Your task to perform on an android device: Search for "bose soundlink" on amazon.com, select the first entry, add it to the cart, then select checkout. Image 0: 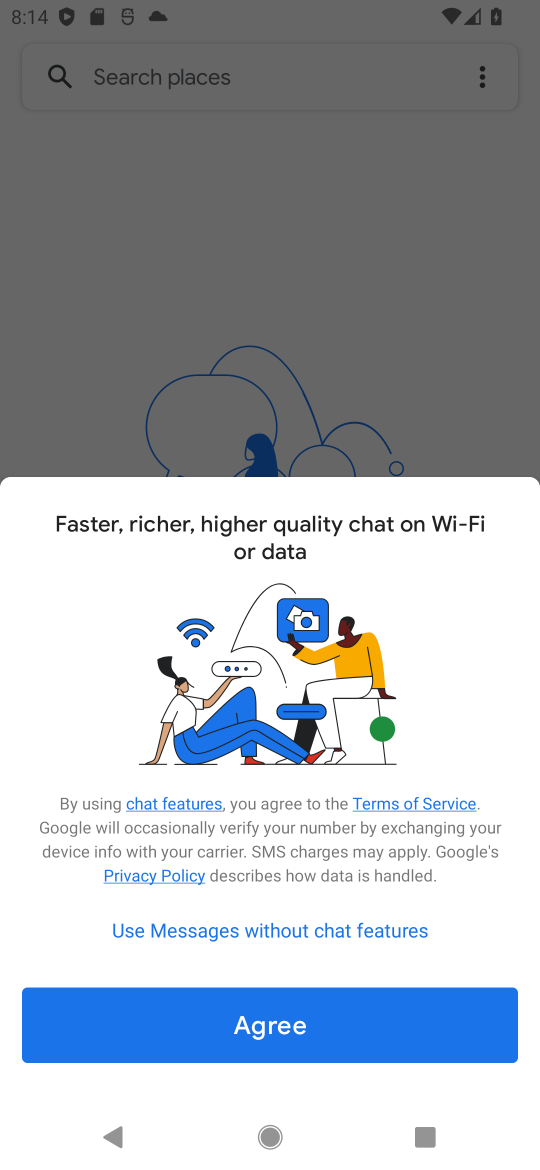
Step 0: press home button
Your task to perform on an android device: Search for "bose soundlink" on amazon.com, select the first entry, add it to the cart, then select checkout. Image 1: 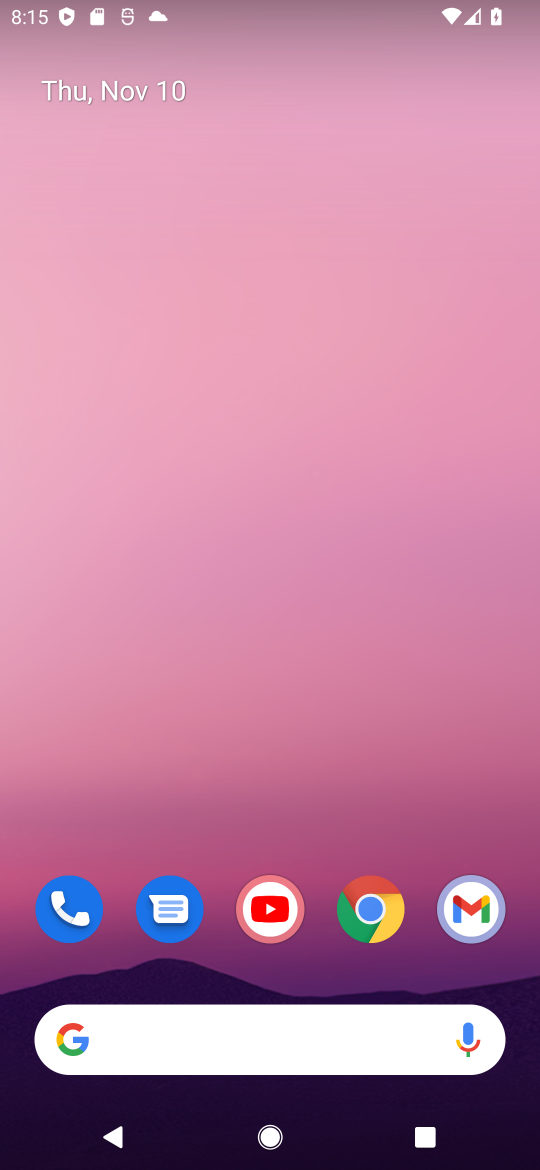
Step 1: drag from (251, 852) to (251, 241)
Your task to perform on an android device: Search for "bose soundlink" on amazon.com, select the first entry, add it to the cart, then select checkout. Image 2: 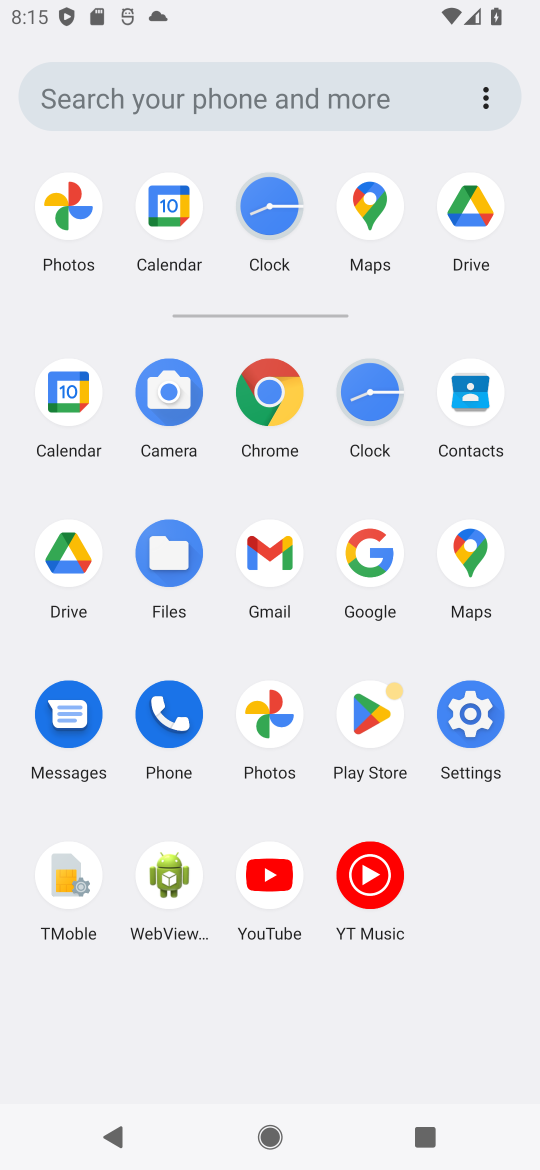
Step 2: click (360, 548)
Your task to perform on an android device: Search for "bose soundlink" on amazon.com, select the first entry, add it to the cart, then select checkout. Image 3: 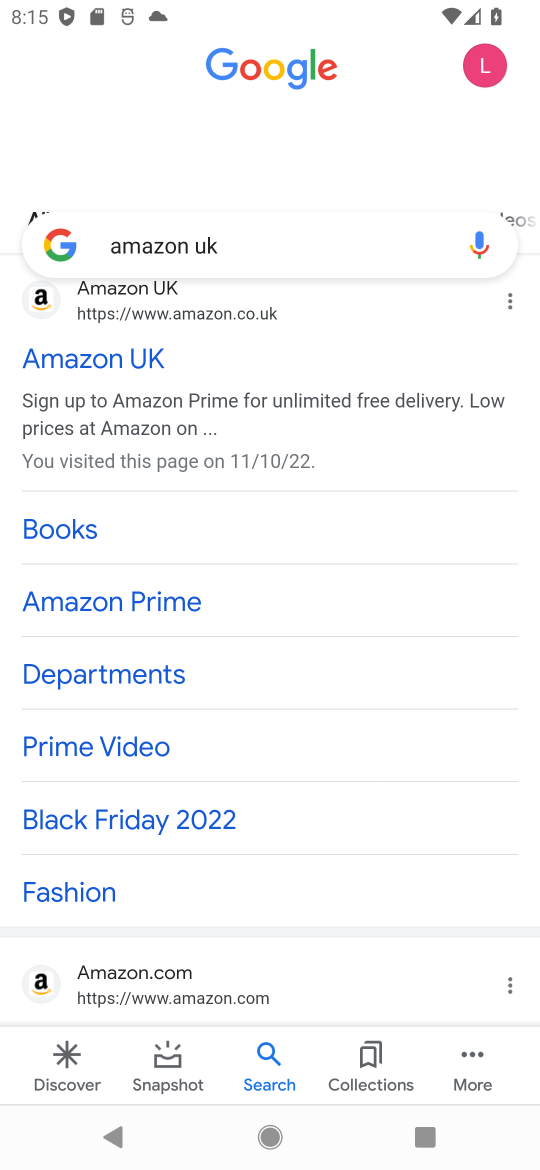
Step 3: click (205, 240)
Your task to perform on an android device: Search for "bose soundlink" on amazon.com, select the first entry, add it to the cart, then select checkout. Image 4: 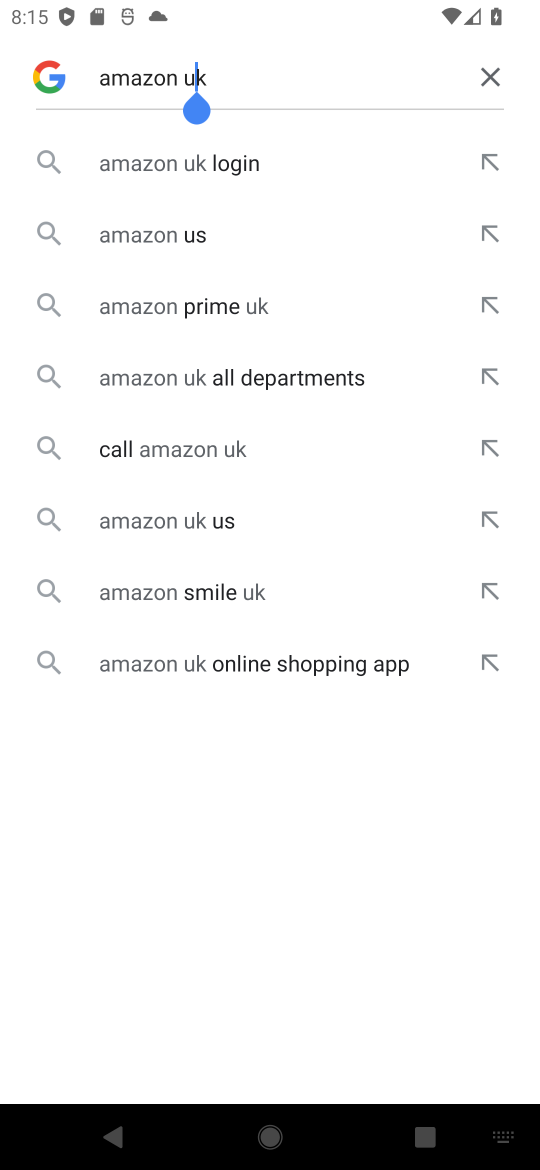
Step 4: click (484, 77)
Your task to perform on an android device: Search for "bose soundlink" on amazon.com, select the first entry, add it to the cart, then select checkout. Image 5: 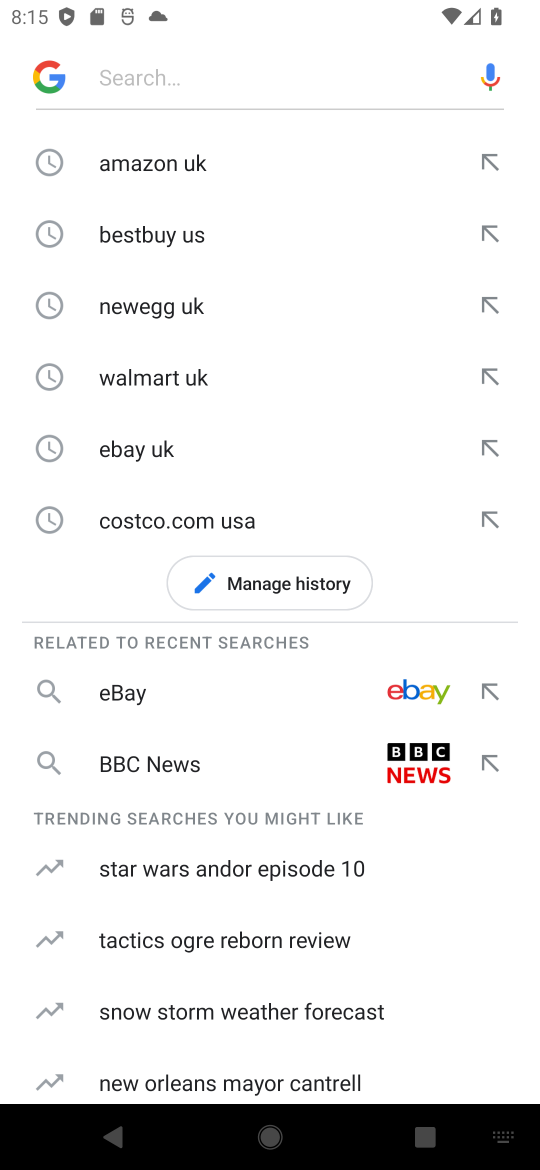
Step 5: click (127, 166)
Your task to perform on an android device: Search for "bose soundlink" on amazon.com, select the first entry, add it to the cart, then select checkout. Image 6: 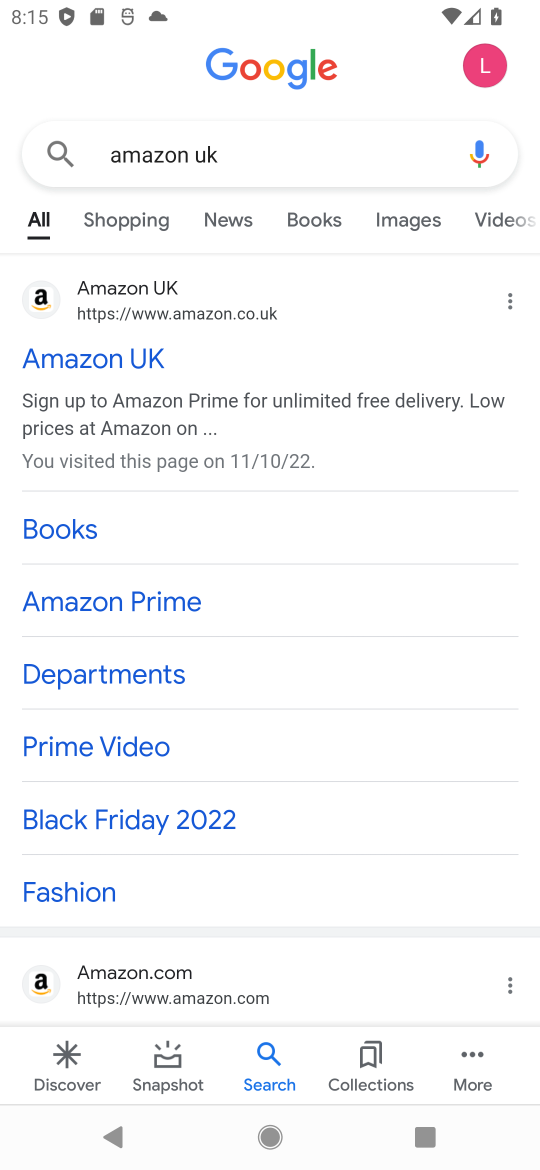
Step 6: click (42, 296)
Your task to perform on an android device: Search for "bose soundlink" on amazon.com, select the first entry, add it to the cart, then select checkout. Image 7: 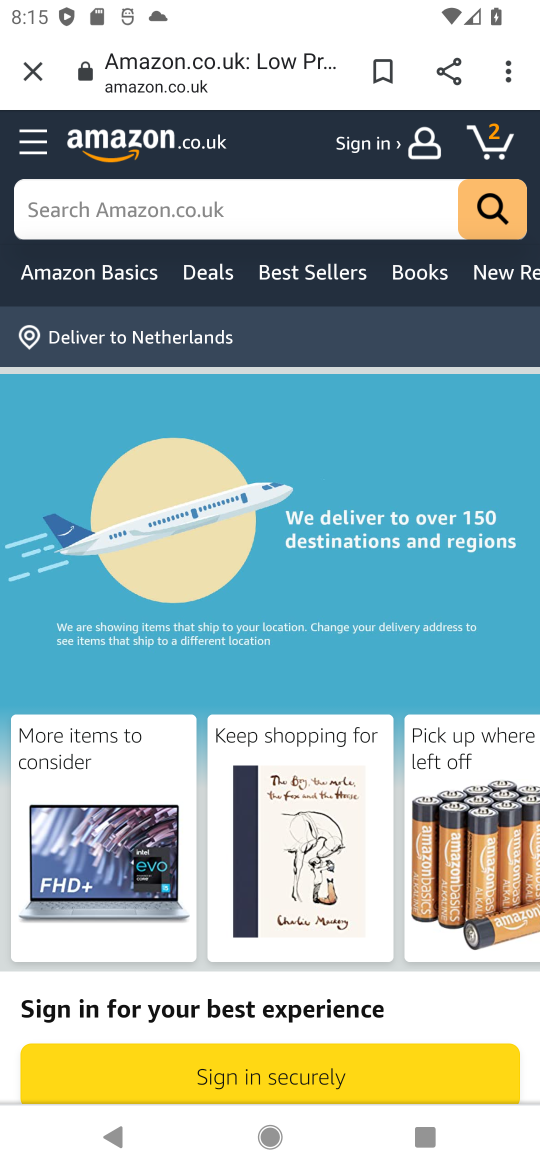
Step 7: click (254, 201)
Your task to perform on an android device: Search for "bose soundlink" on amazon.com, select the first entry, add it to the cart, then select checkout. Image 8: 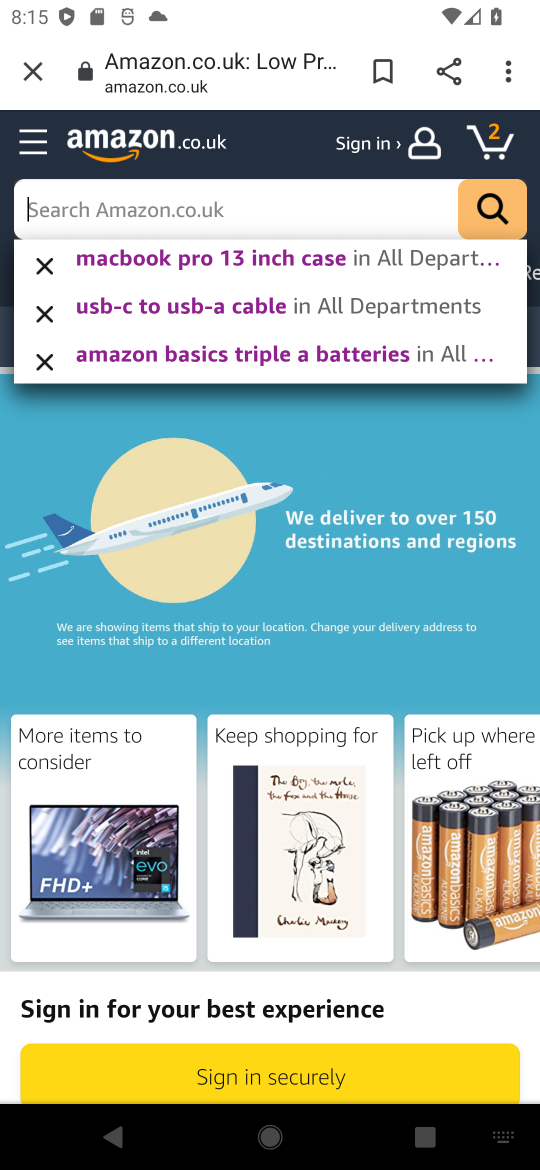
Step 8: type "bose soundlink "
Your task to perform on an android device: Search for "bose soundlink" on amazon.com, select the first entry, add it to the cart, then select checkout. Image 9: 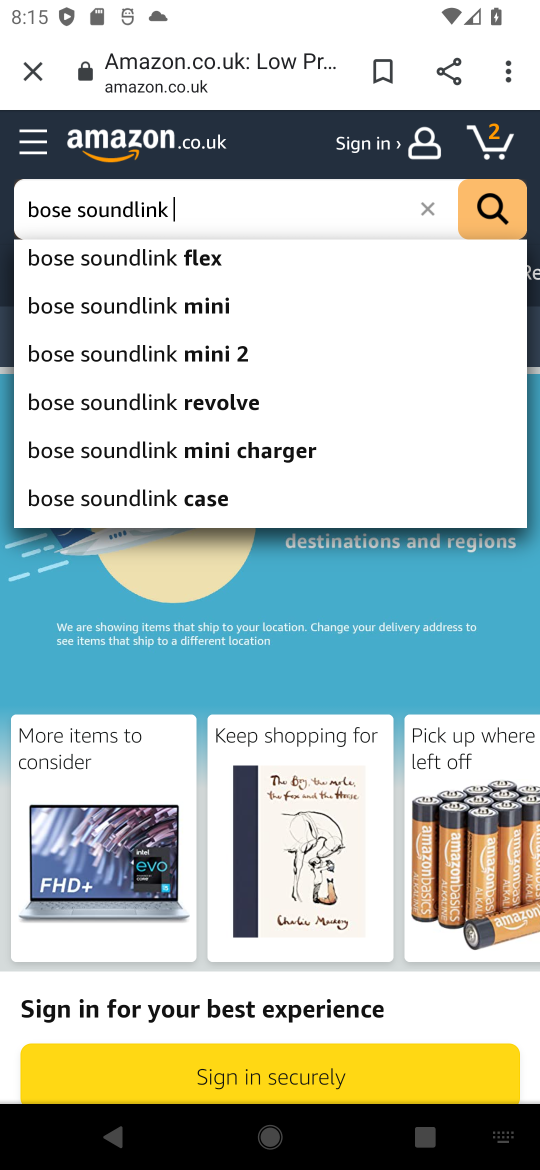
Step 9: click (124, 257)
Your task to perform on an android device: Search for "bose soundlink" on amazon.com, select the first entry, add it to the cart, then select checkout. Image 10: 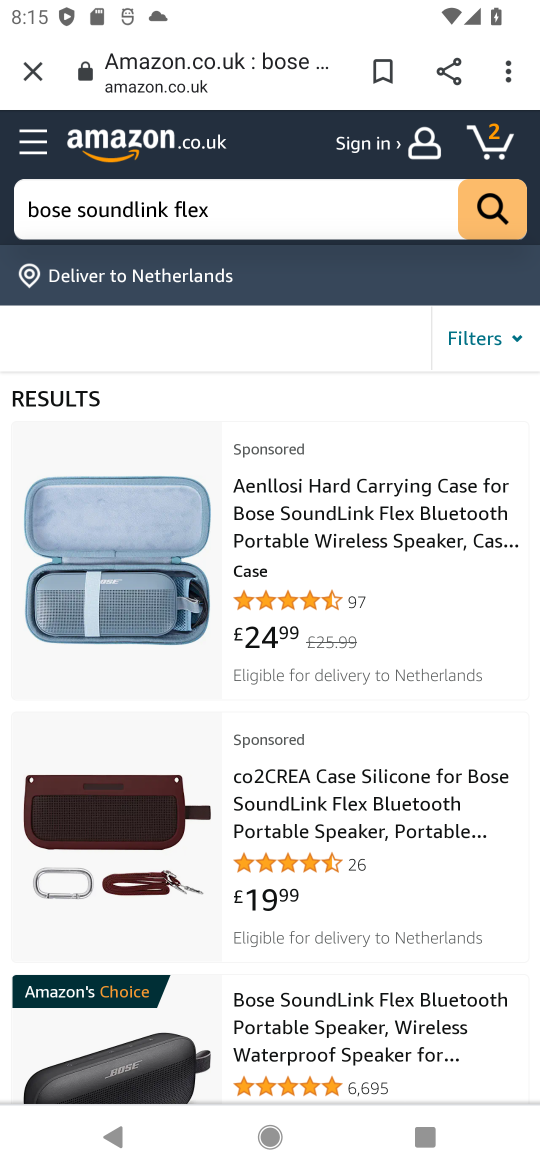
Step 10: click (413, 208)
Your task to perform on an android device: Search for "bose soundlink" on amazon.com, select the first entry, add it to the cart, then select checkout. Image 11: 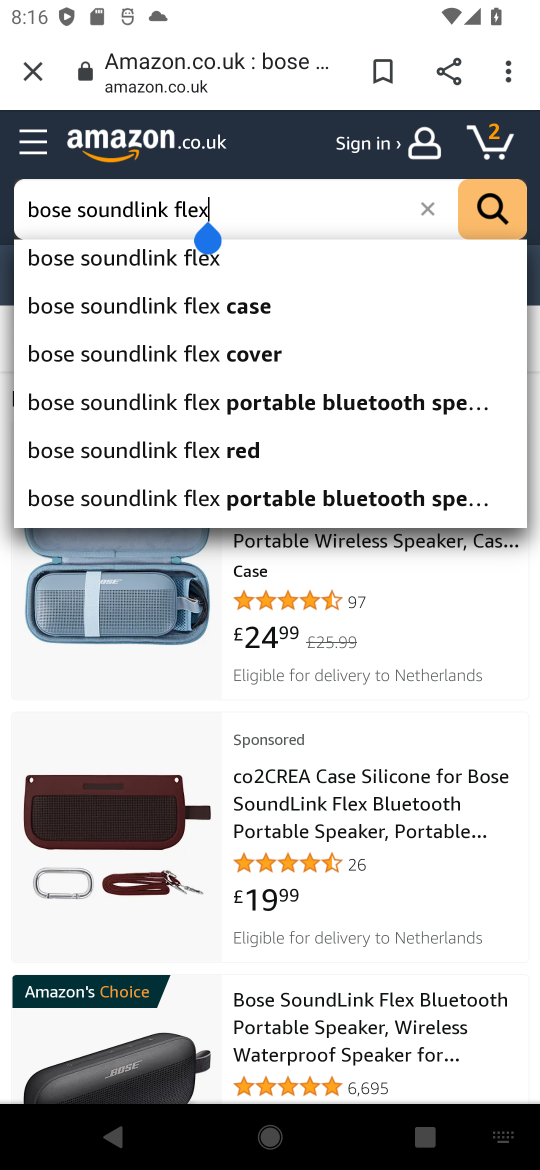
Step 11: click (429, 210)
Your task to perform on an android device: Search for "bose soundlink" on amazon.com, select the first entry, add it to the cart, then select checkout. Image 12: 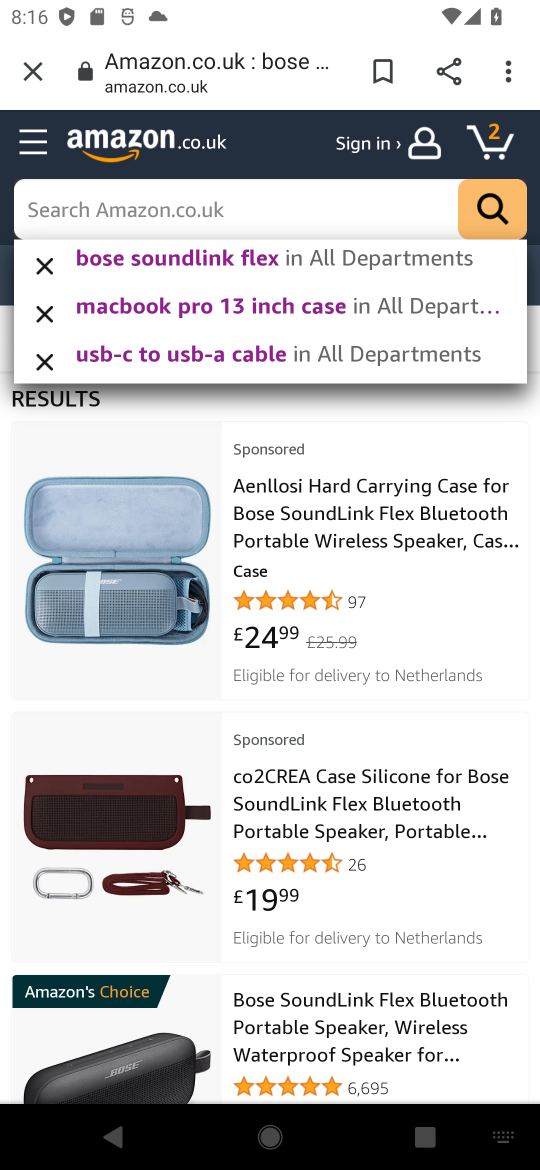
Step 12: click (249, 200)
Your task to perform on an android device: Search for "bose soundlink" on amazon.com, select the first entry, add it to the cart, then select checkout. Image 13: 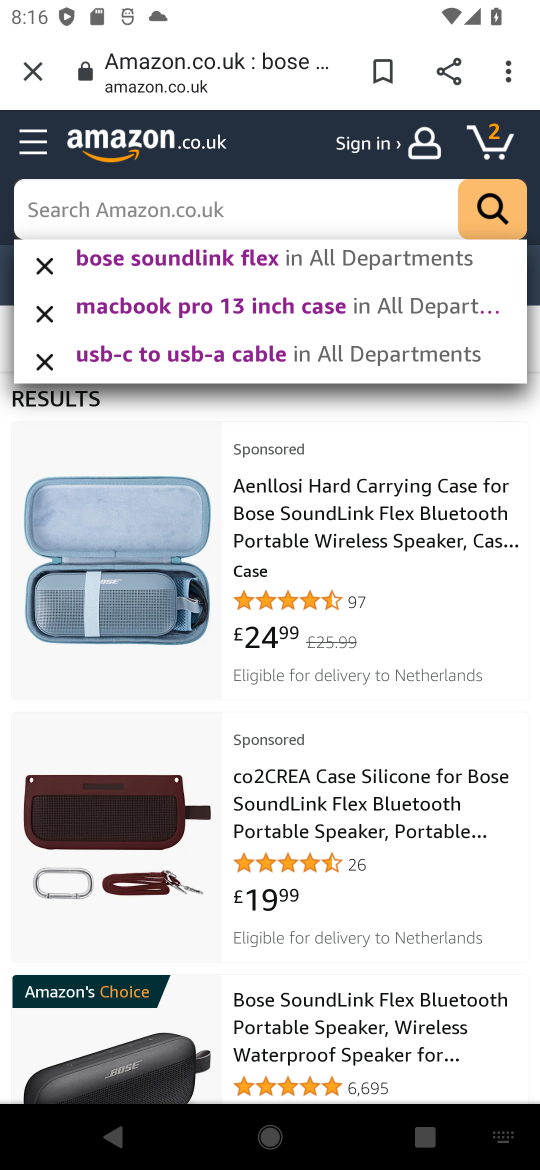
Step 13: click (187, 200)
Your task to perform on an android device: Search for "bose soundlink" on amazon.com, select the first entry, add it to the cart, then select checkout. Image 14: 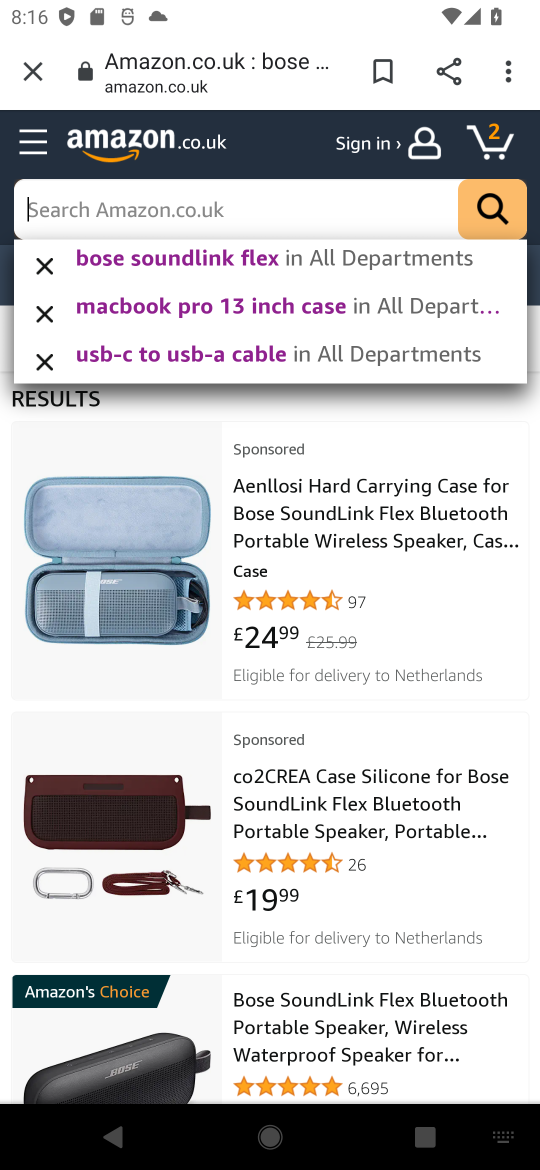
Step 14: type "bose soundlink"
Your task to perform on an android device: Search for "bose soundlink" on amazon.com, select the first entry, add it to the cart, then select checkout. Image 15: 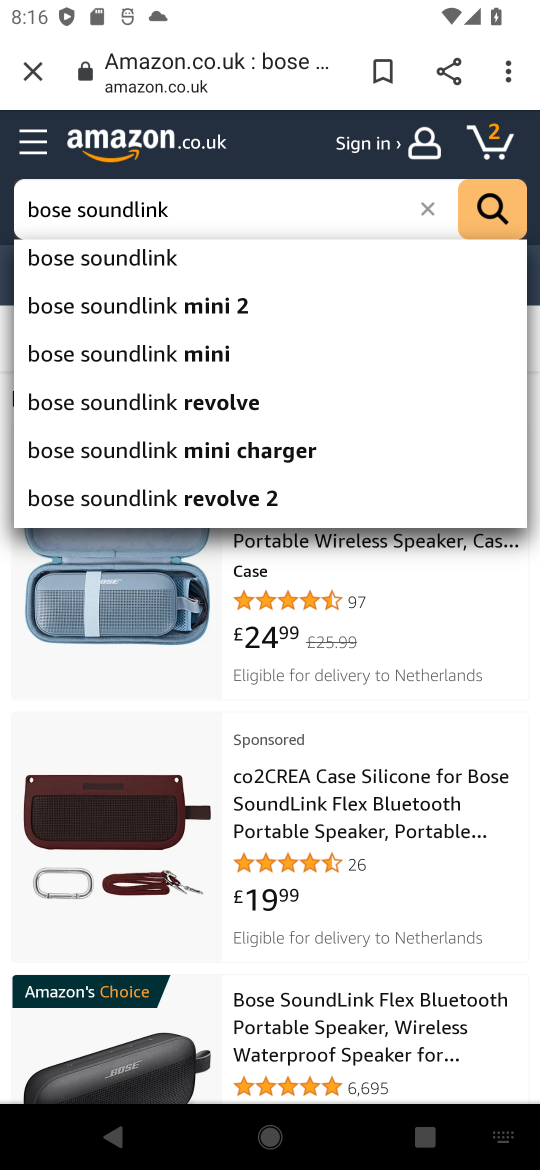
Step 15: click (58, 248)
Your task to perform on an android device: Search for "bose soundlink" on amazon.com, select the first entry, add it to the cart, then select checkout. Image 16: 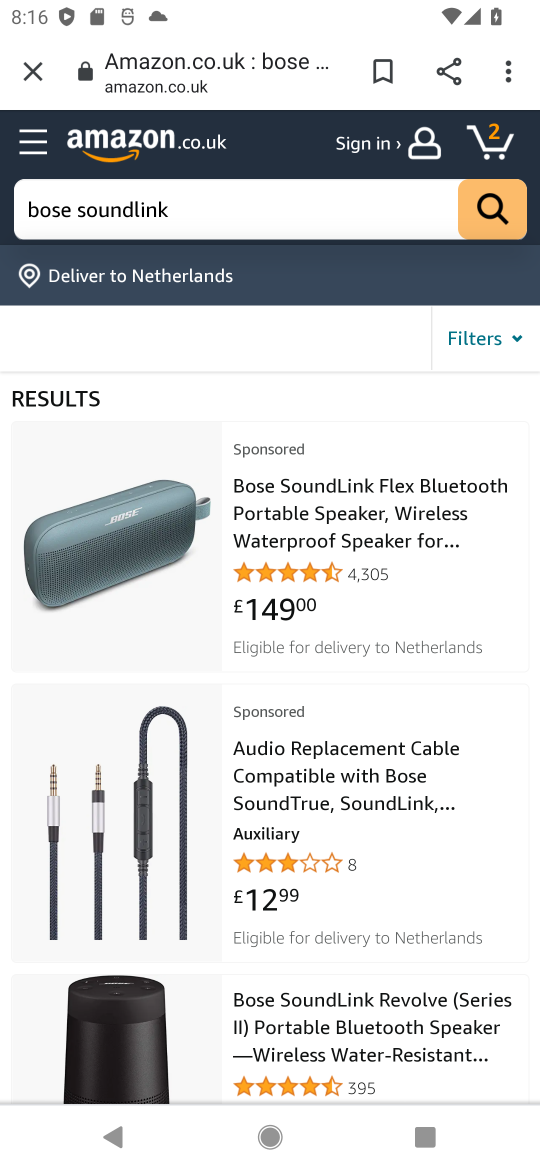
Step 16: click (318, 488)
Your task to perform on an android device: Search for "bose soundlink" on amazon.com, select the first entry, add it to the cart, then select checkout. Image 17: 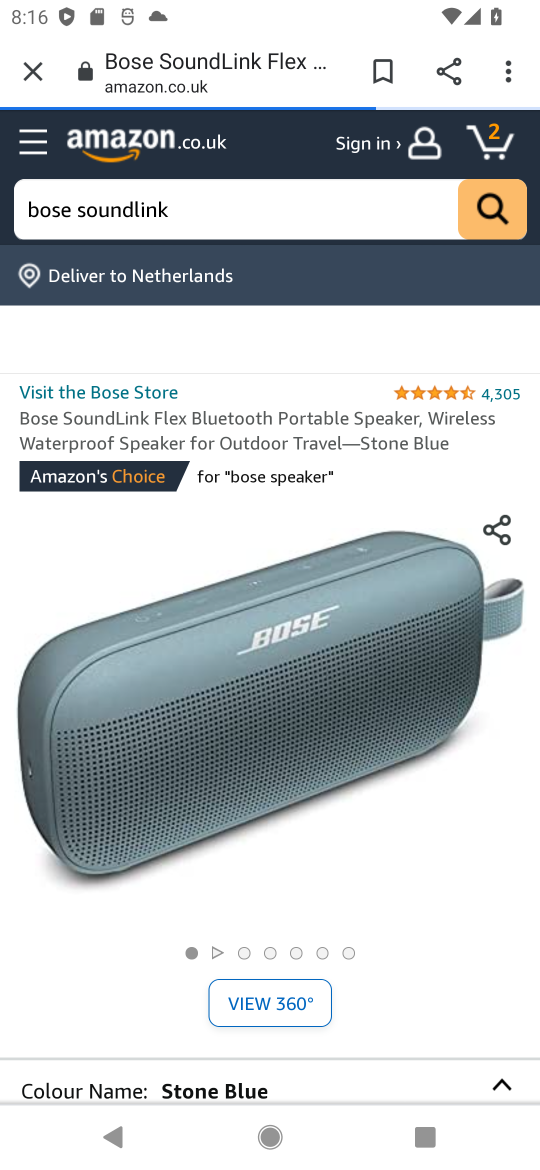
Step 17: drag from (306, 944) to (322, 364)
Your task to perform on an android device: Search for "bose soundlink" on amazon.com, select the first entry, add it to the cart, then select checkout. Image 18: 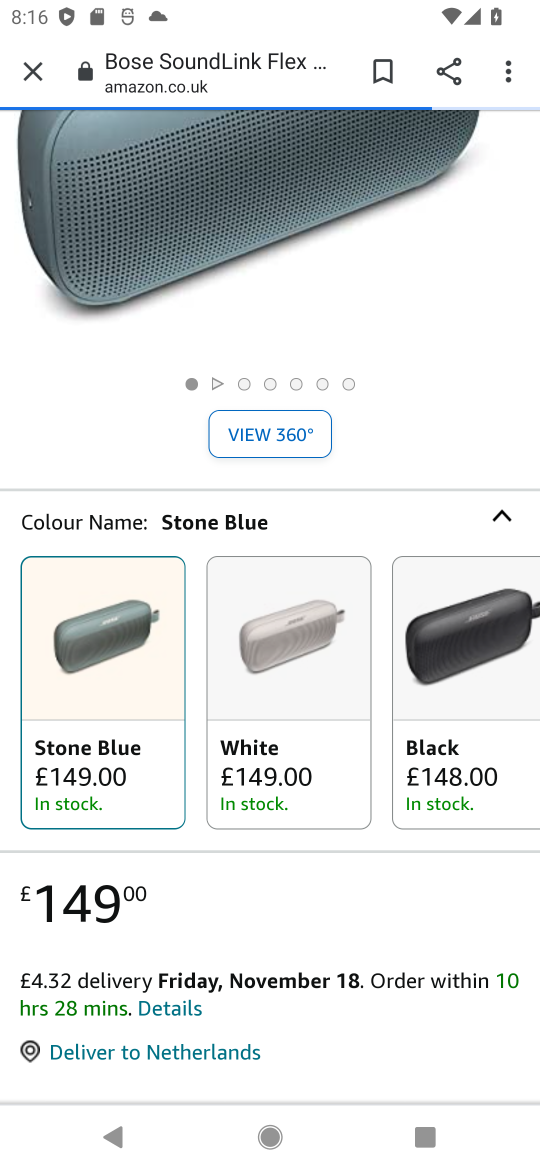
Step 18: drag from (346, 1007) to (536, 225)
Your task to perform on an android device: Search for "bose soundlink" on amazon.com, select the first entry, add it to the cart, then select checkout. Image 19: 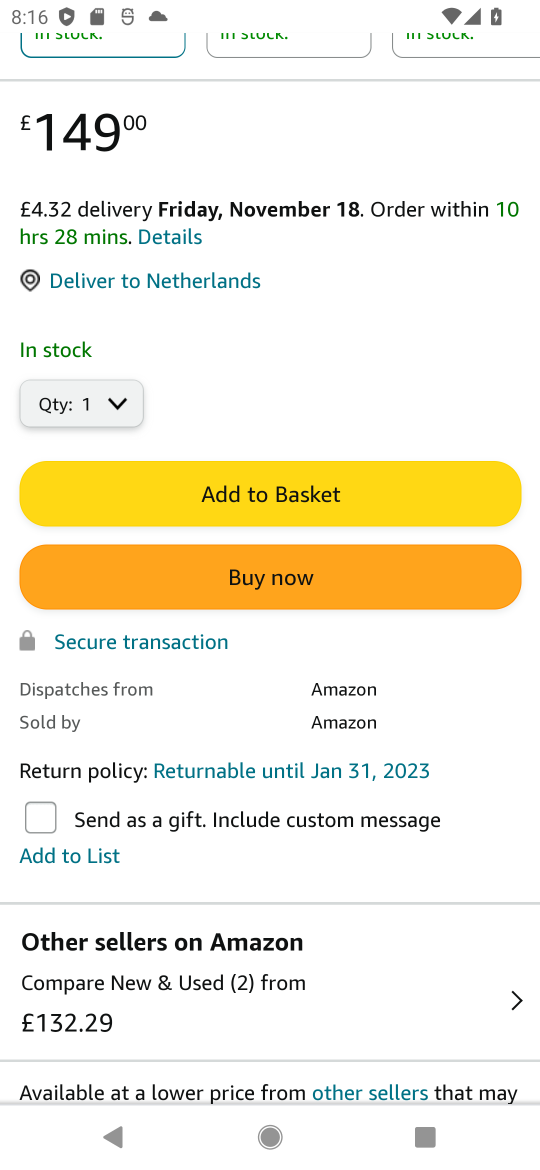
Step 19: click (246, 1061)
Your task to perform on an android device: Search for "bose soundlink" on amazon.com, select the first entry, add it to the cart, then select checkout. Image 20: 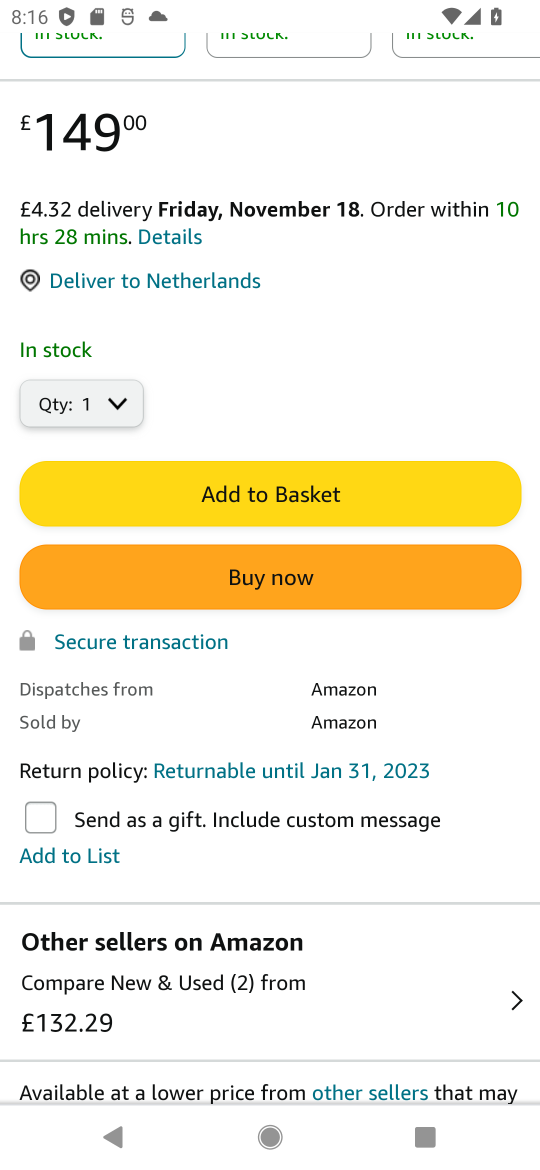
Step 20: click (308, 481)
Your task to perform on an android device: Search for "bose soundlink" on amazon.com, select the first entry, add it to the cart, then select checkout. Image 21: 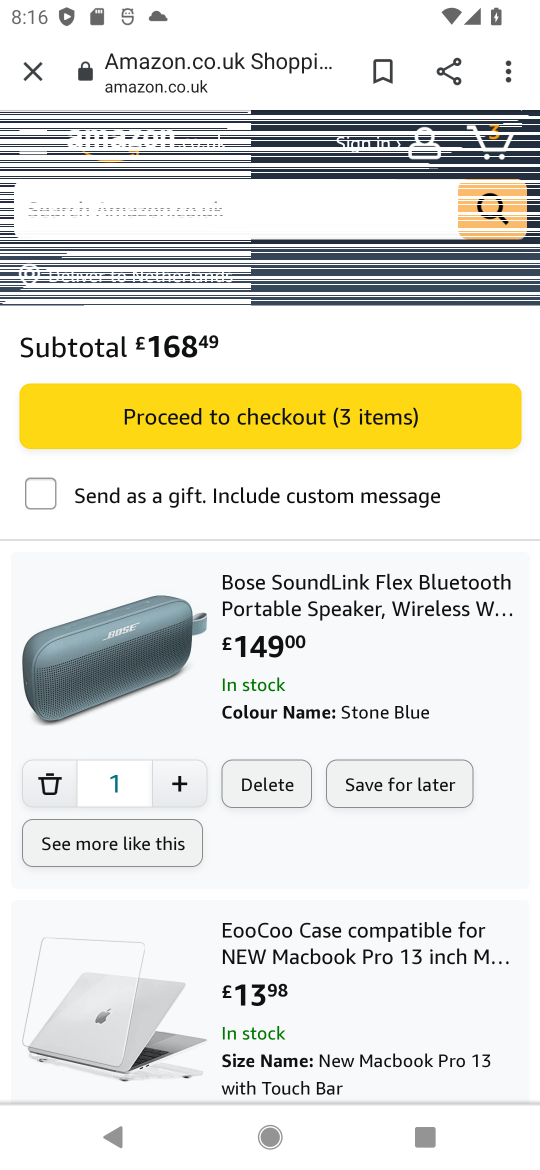
Step 21: task complete